Your task to perform on an android device: Open the web browser Image 0: 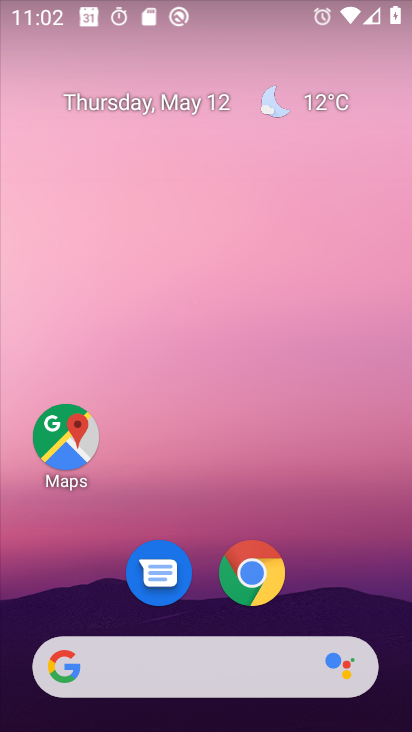
Step 0: click (244, 576)
Your task to perform on an android device: Open the web browser Image 1: 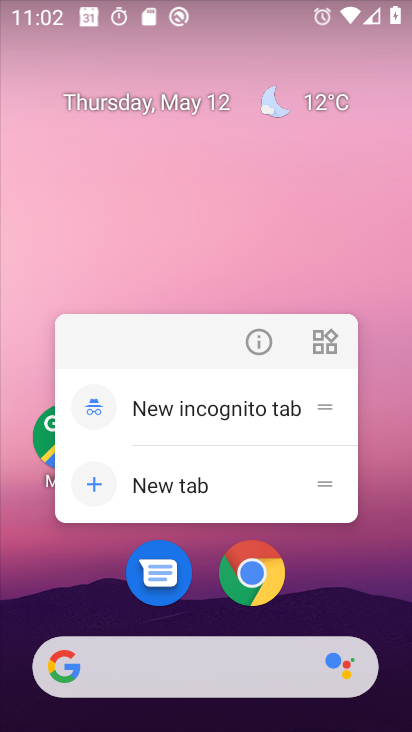
Step 1: click (258, 575)
Your task to perform on an android device: Open the web browser Image 2: 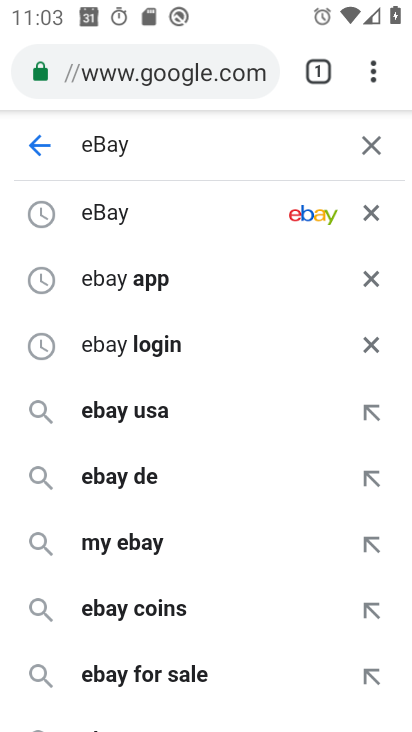
Step 2: task complete